Your task to perform on an android device: change notification settings in the gmail app Image 0: 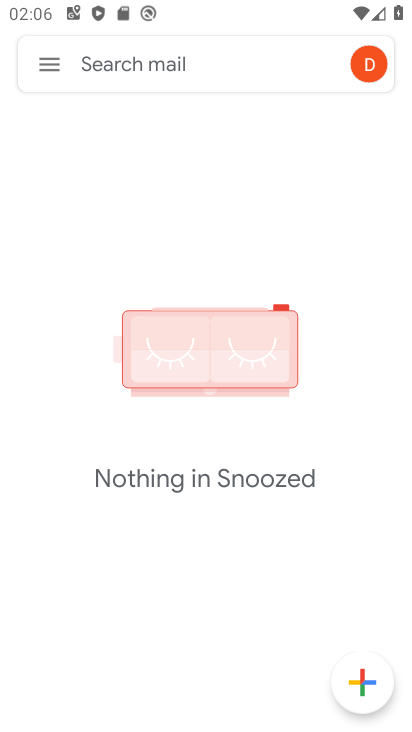
Step 0: press home button
Your task to perform on an android device: change notification settings in the gmail app Image 1: 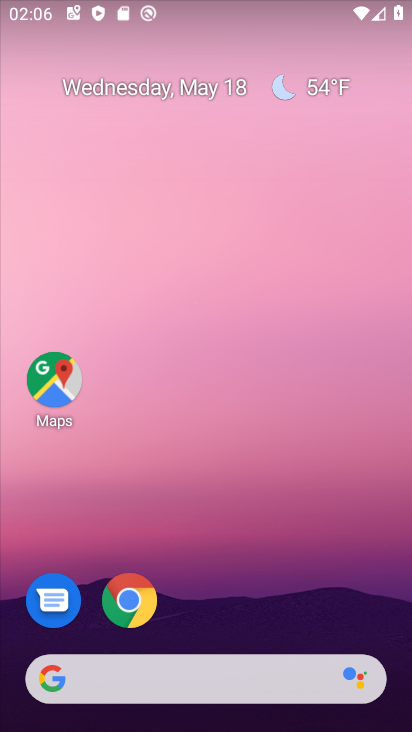
Step 1: drag from (185, 630) to (230, 200)
Your task to perform on an android device: change notification settings in the gmail app Image 2: 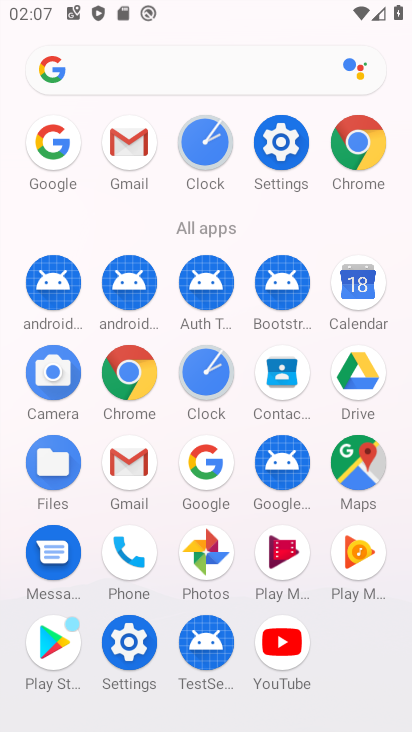
Step 2: click (132, 457)
Your task to perform on an android device: change notification settings in the gmail app Image 3: 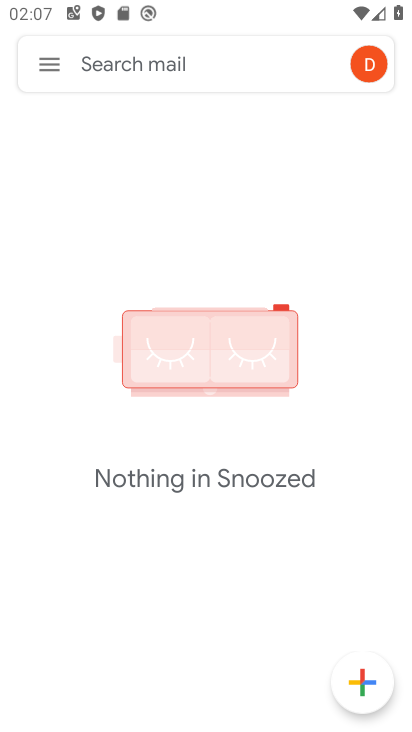
Step 3: click (54, 73)
Your task to perform on an android device: change notification settings in the gmail app Image 4: 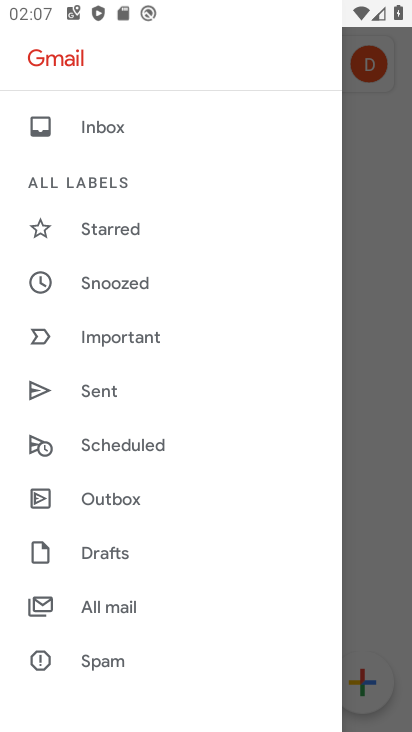
Step 4: drag from (111, 654) to (159, 225)
Your task to perform on an android device: change notification settings in the gmail app Image 5: 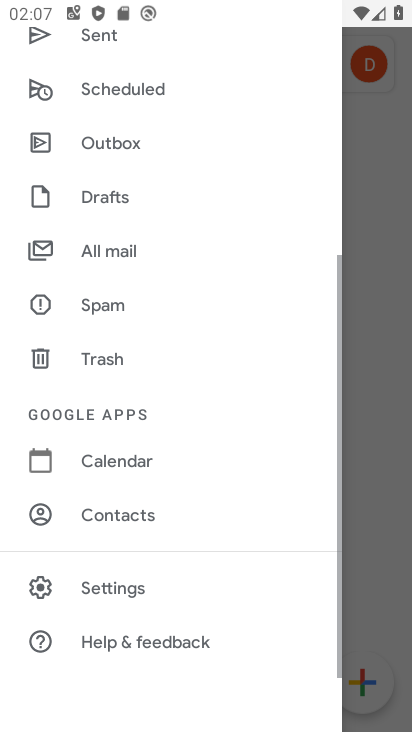
Step 5: click (124, 595)
Your task to perform on an android device: change notification settings in the gmail app Image 6: 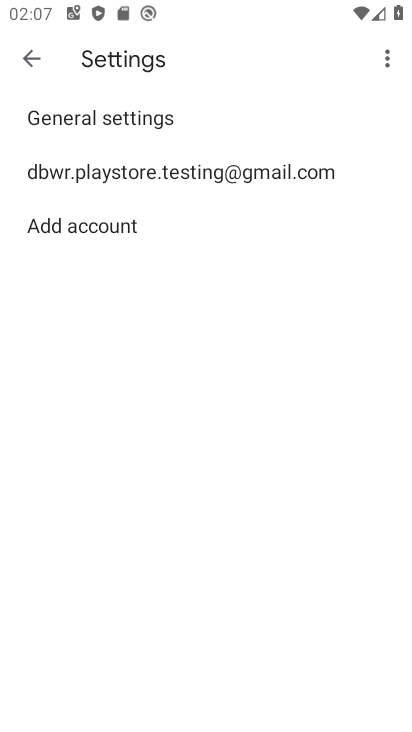
Step 6: click (65, 174)
Your task to perform on an android device: change notification settings in the gmail app Image 7: 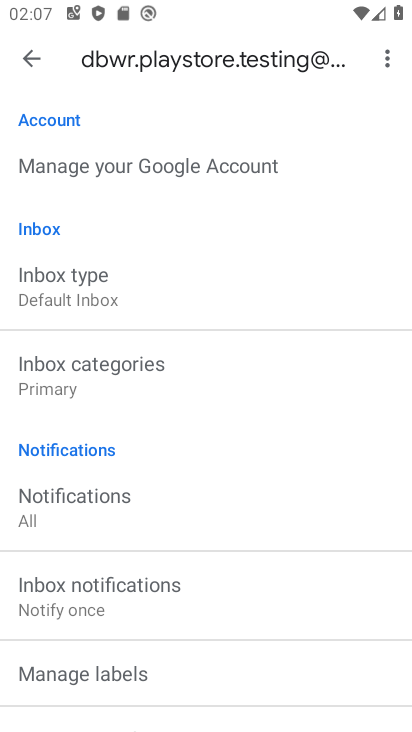
Step 7: click (66, 497)
Your task to perform on an android device: change notification settings in the gmail app Image 8: 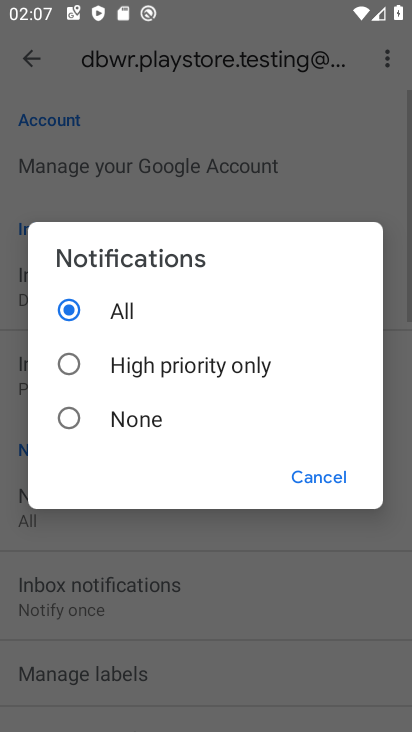
Step 8: click (102, 360)
Your task to perform on an android device: change notification settings in the gmail app Image 9: 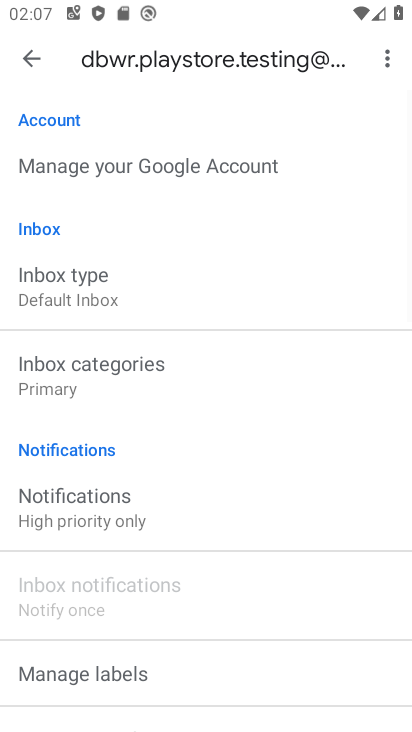
Step 9: task complete